Your task to perform on an android device: uninstall "ColorNote Notepad Notes" Image 0: 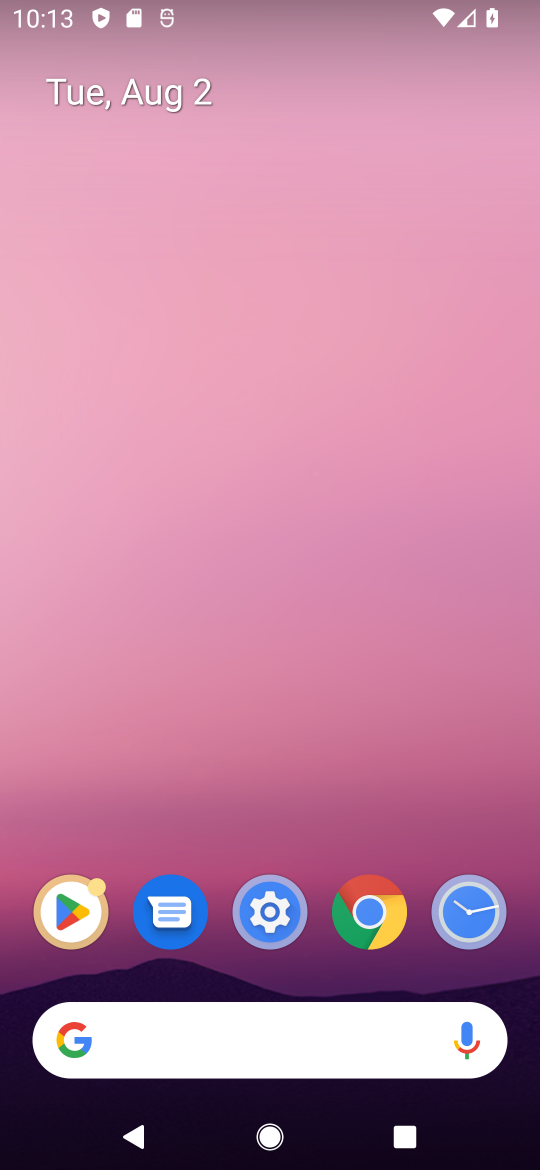
Step 0: drag from (327, 1017) to (244, 312)
Your task to perform on an android device: uninstall "ColorNote Notepad Notes" Image 1: 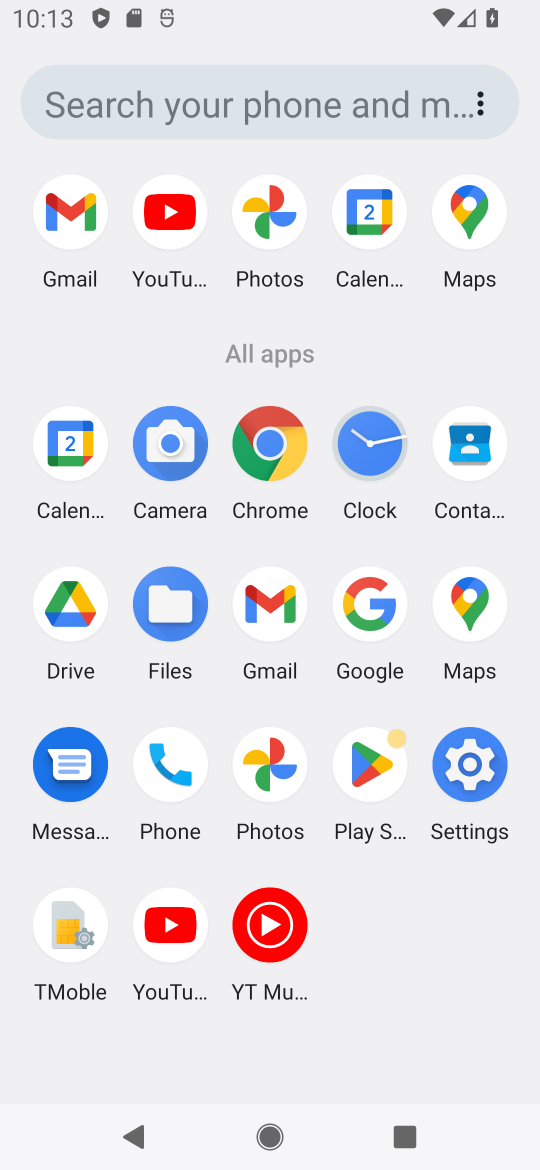
Step 1: click (360, 773)
Your task to perform on an android device: uninstall "ColorNote Notepad Notes" Image 2: 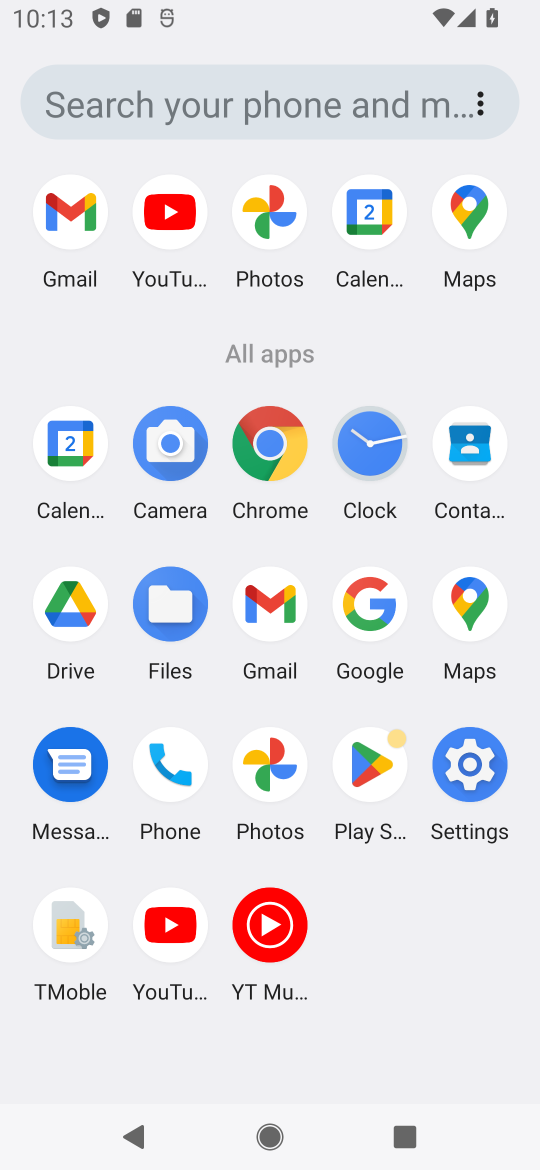
Step 2: click (356, 788)
Your task to perform on an android device: uninstall "ColorNote Notepad Notes" Image 3: 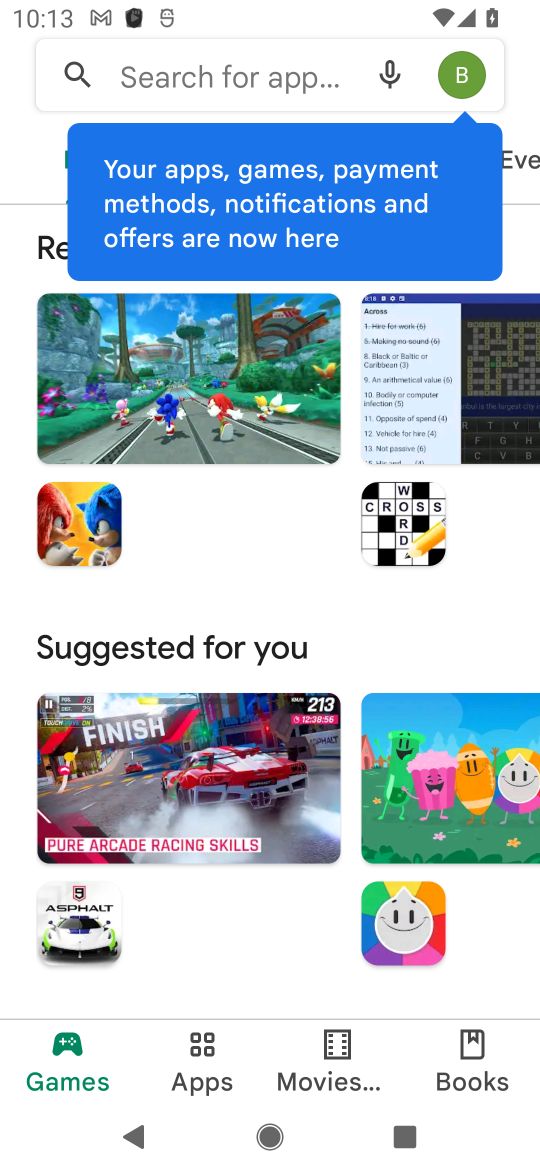
Step 3: click (286, 74)
Your task to perform on an android device: uninstall "ColorNote Notepad Notes" Image 4: 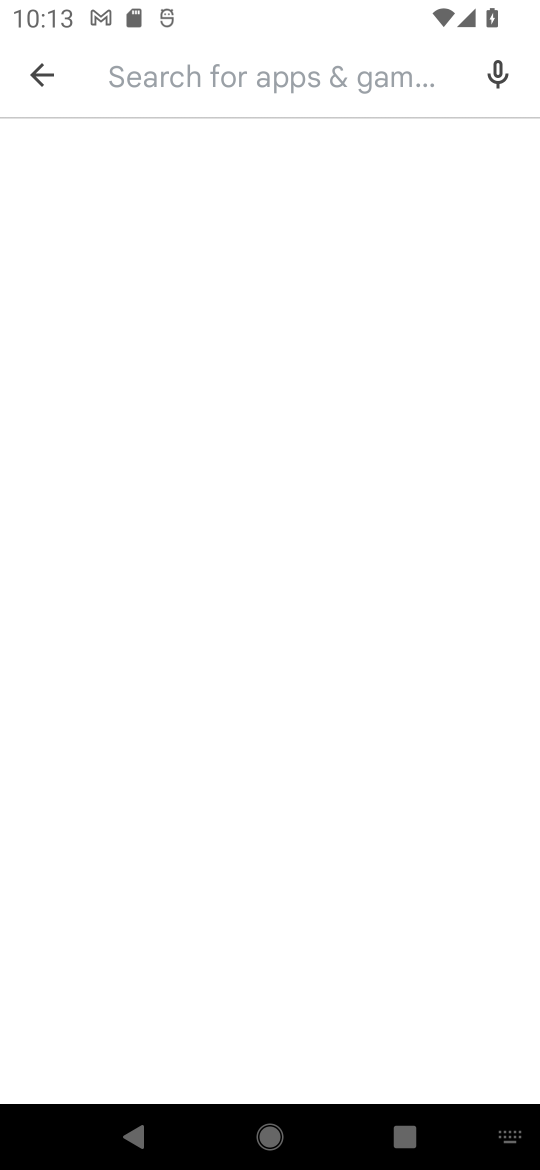
Step 4: type "ColorNote Notepad Notes"
Your task to perform on an android device: uninstall "ColorNote Notepad Notes" Image 5: 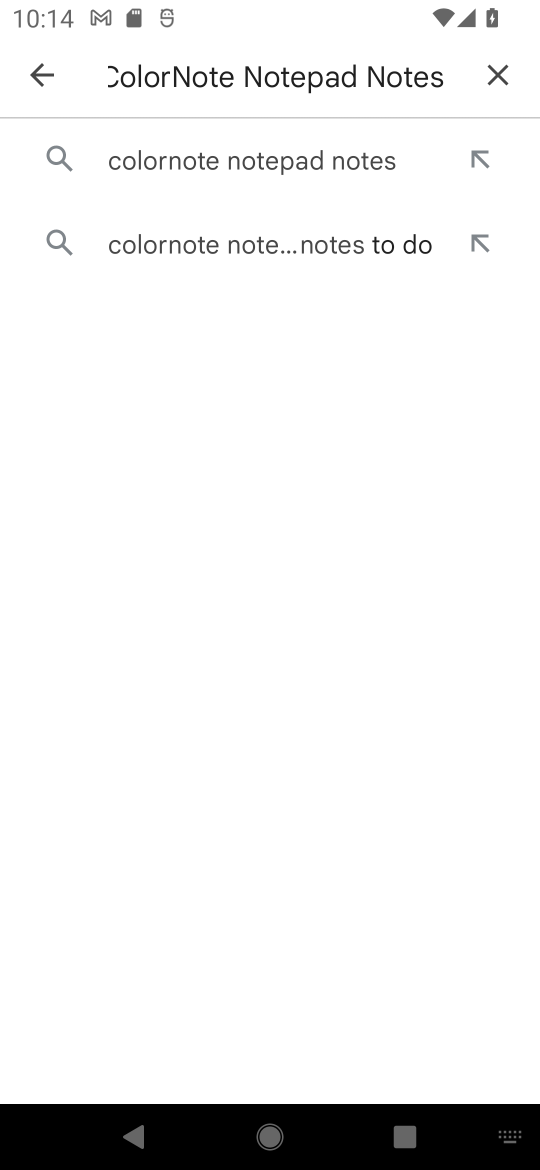
Step 5: click (234, 180)
Your task to perform on an android device: uninstall "ColorNote Notepad Notes" Image 6: 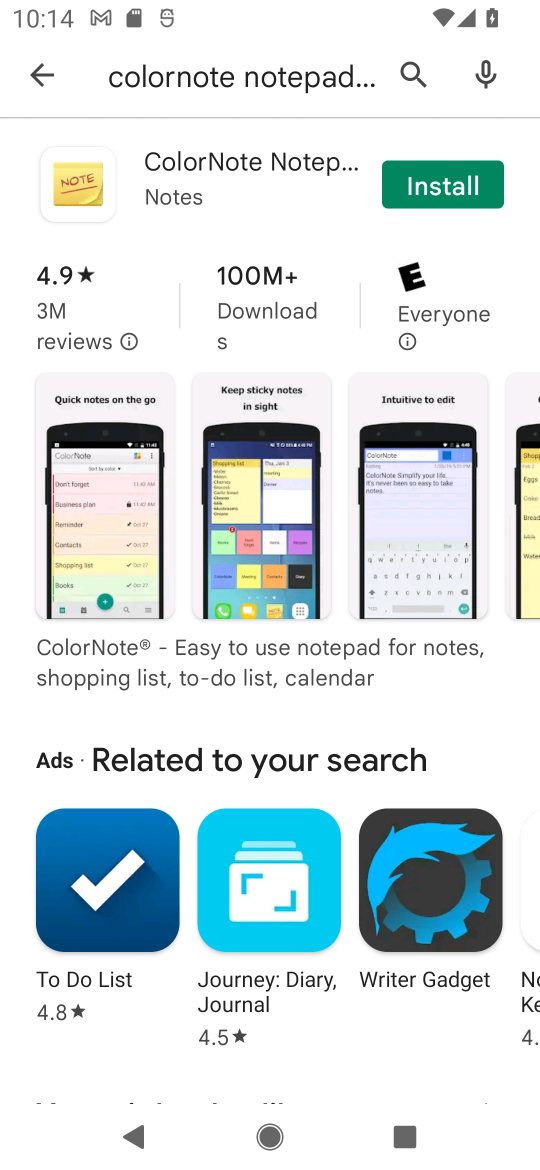
Step 6: task complete